Your task to perform on an android device: toggle notifications settings in the gmail app Image 0: 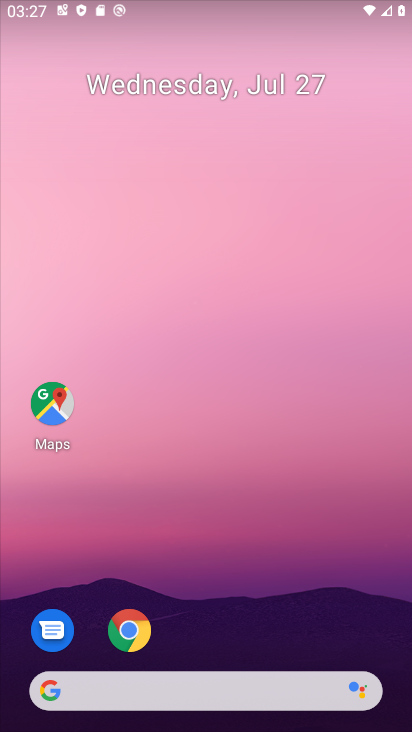
Step 0: press back button
Your task to perform on an android device: toggle notifications settings in the gmail app Image 1: 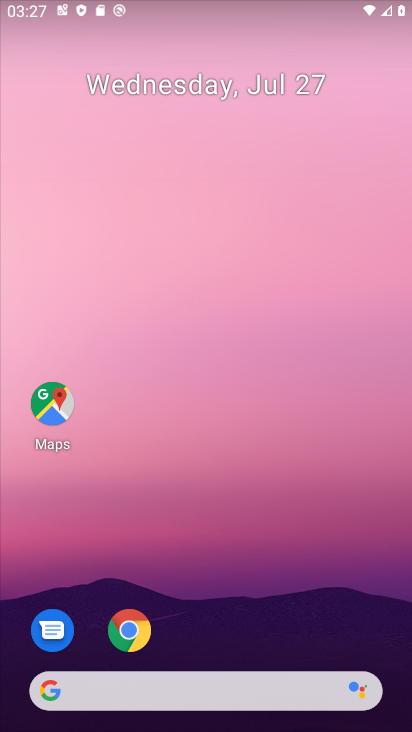
Step 1: press home button
Your task to perform on an android device: toggle notifications settings in the gmail app Image 2: 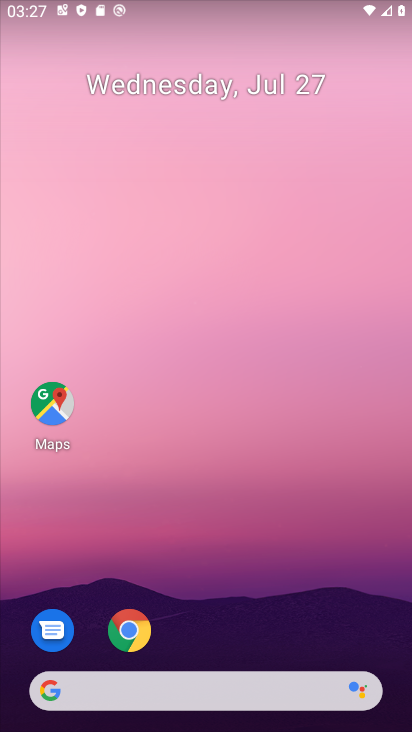
Step 2: click (25, 108)
Your task to perform on an android device: toggle notifications settings in the gmail app Image 3: 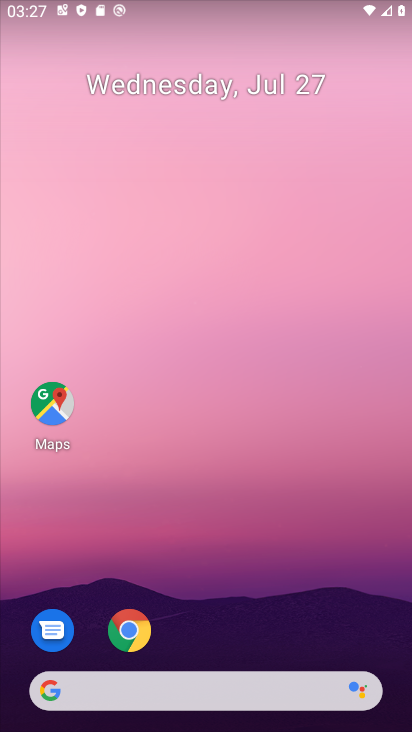
Step 3: drag from (238, 386) to (94, 189)
Your task to perform on an android device: toggle notifications settings in the gmail app Image 4: 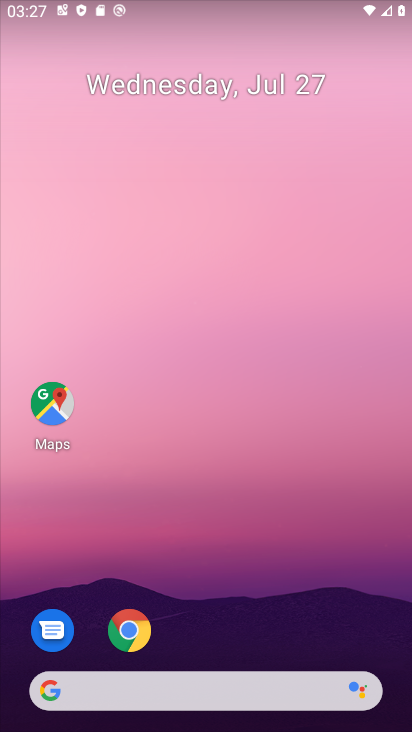
Step 4: drag from (177, 454) to (102, 227)
Your task to perform on an android device: toggle notifications settings in the gmail app Image 5: 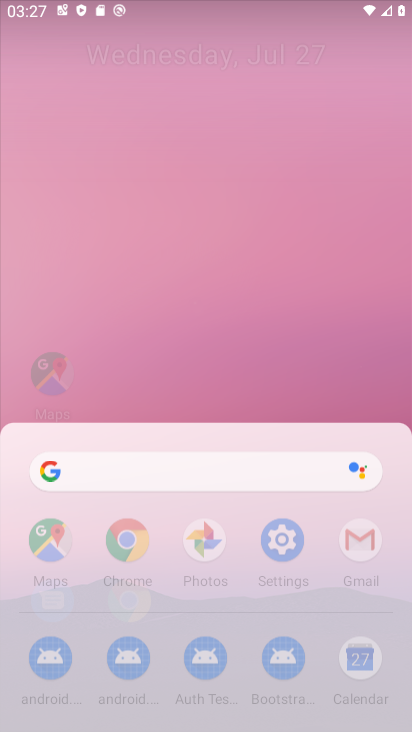
Step 5: drag from (262, 493) to (148, 163)
Your task to perform on an android device: toggle notifications settings in the gmail app Image 6: 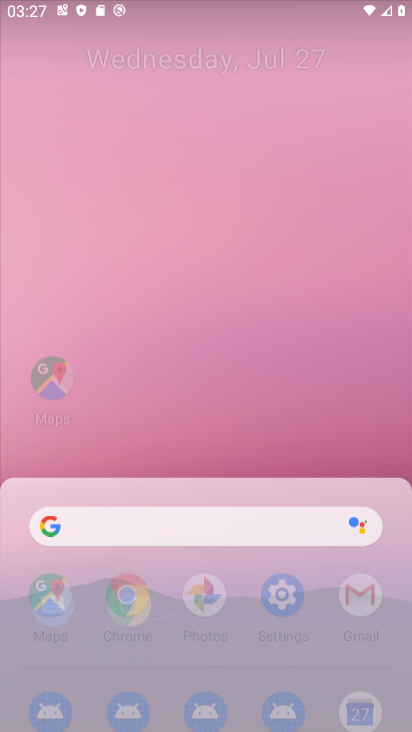
Step 6: drag from (241, 522) to (93, 40)
Your task to perform on an android device: toggle notifications settings in the gmail app Image 7: 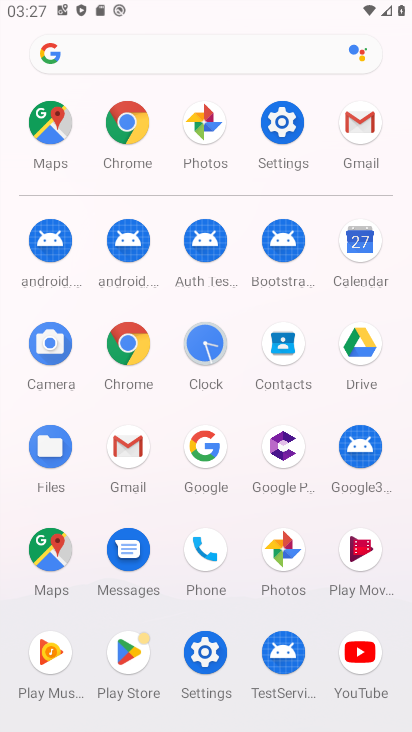
Step 7: drag from (200, 471) to (110, 102)
Your task to perform on an android device: toggle notifications settings in the gmail app Image 8: 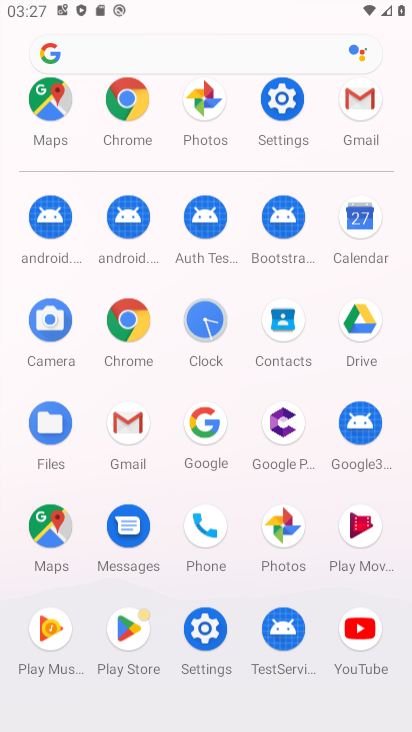
Step 8: drag from (272, 522) to (197, 114)
Your task to perform on an android device: toggle notifications settings in the gmail app Image 9: 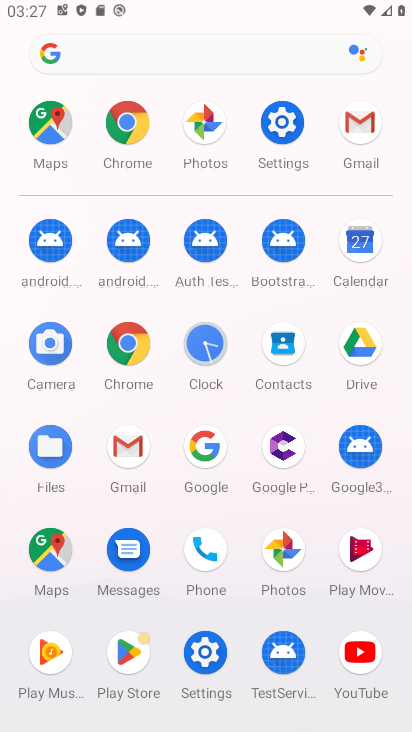
Step 9: click (355, 127)
Your task to perform on an android device: toggle notifications settings in the gmail app Image 10: 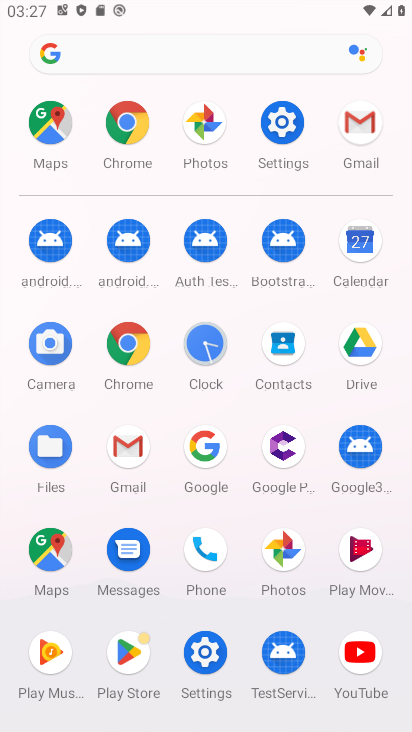
Step 10: click (355, 127)
Your task to perform on an android device: toggle notifications settings in the gmail app Image 11: 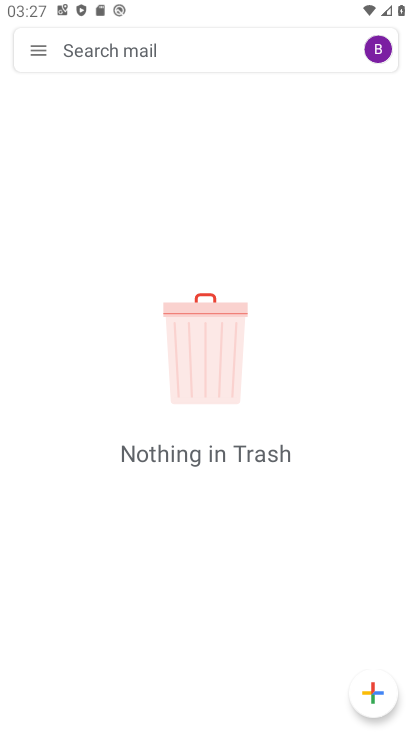
Step 11: click (37, 52)
Your task to perform on an android device: toggle notifications settings in the gmail app Image 12: 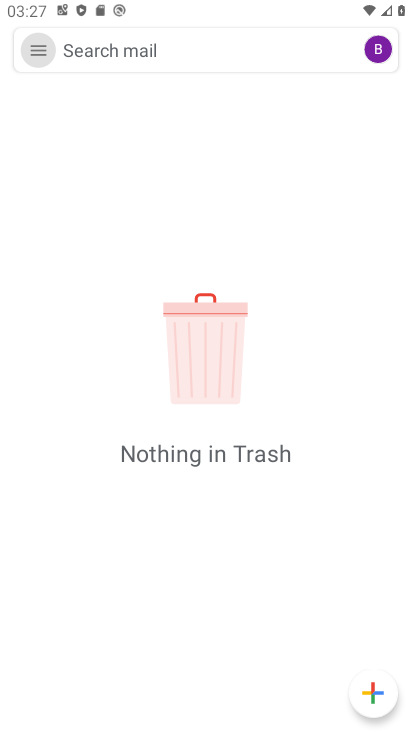
Step 12: click (39, 52)
Your task to perform on an android device: toggle notifications settings in the gmail app Image 13: 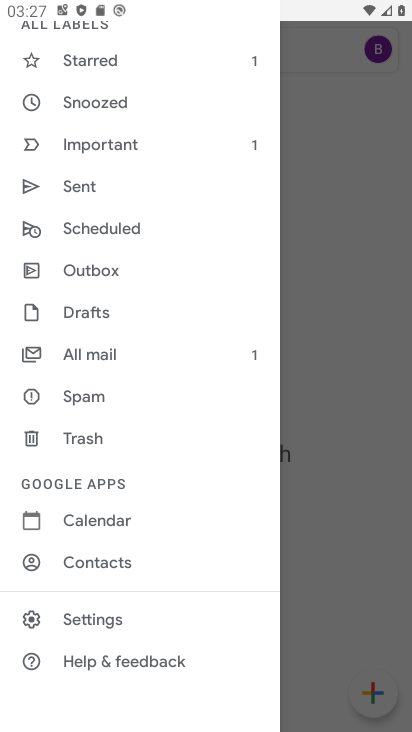
Step 13: click (106, 613)
Your task to perform on an android device: toggle notifications settings in the gmail app Image 14: 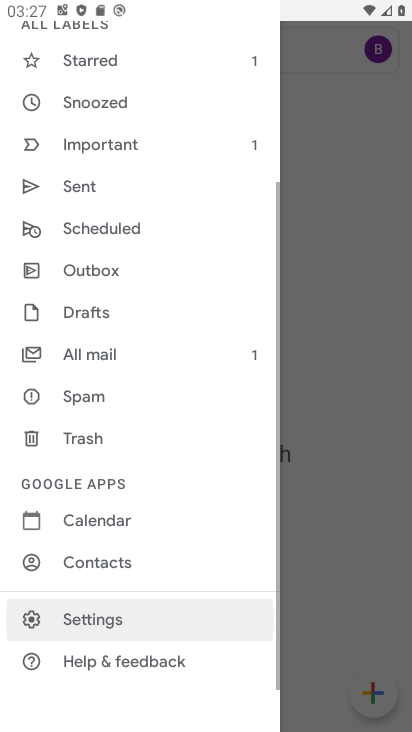
Step 14: click (94, 604)
Your task to perform on an android device: toggle notifications settings in the gmail app Image 15: 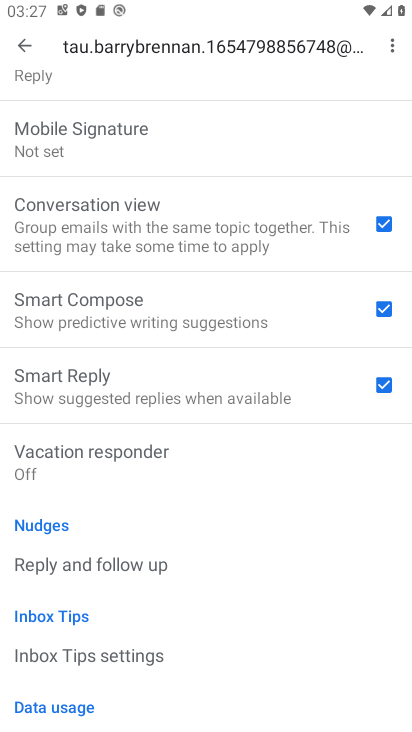
Step 15: drag from (102, 184) to (127, 500)
Your task to perform on an android device: toggle notifications settings in the gmail app Image 16: 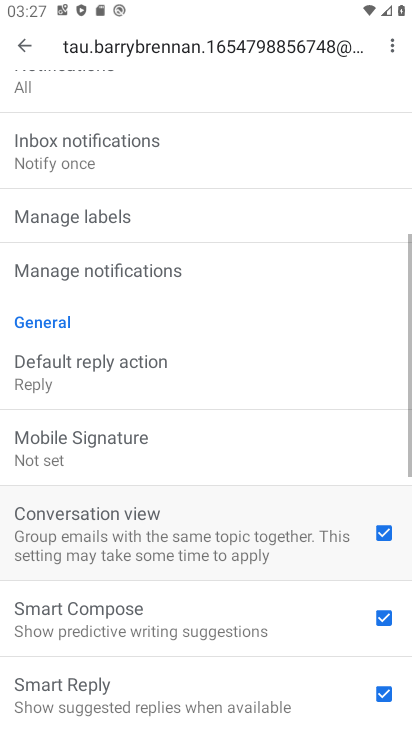
Step 16: drag from (110, 340) to (142, 533)
Your task to perform on an android device: toggle notifications settings in the gmail app Image 17: 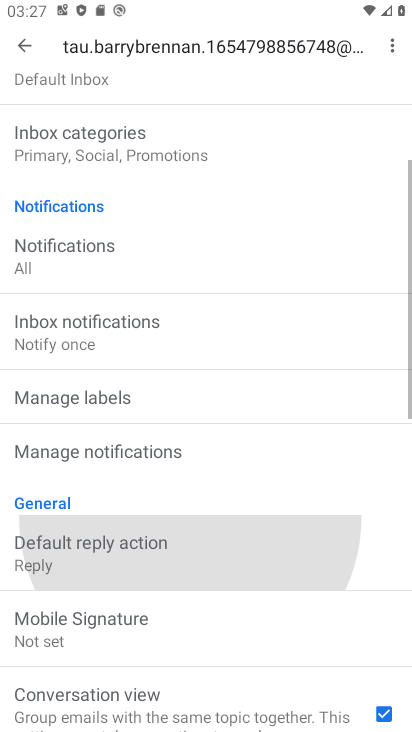
Step 17: drag from (129, 208) to (152, 526)
Your task to perform on an android device: toggle notifications settings in the gmail app Image 18: 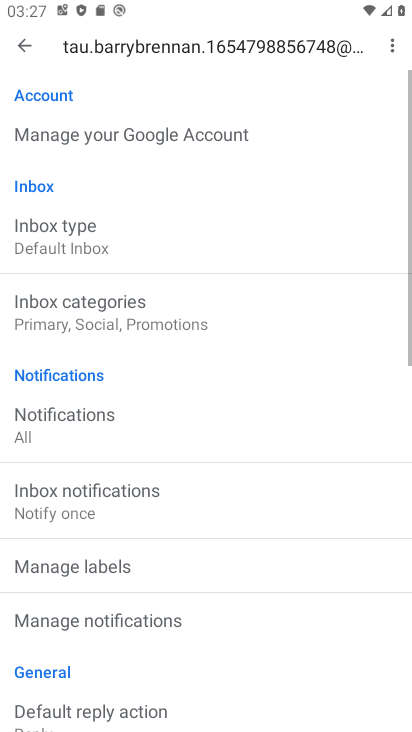
Step 18: drag from (107, 265) to (134, 517)
Your task to perform on an android device: toggle notifications settings in the gmail app Image 19: 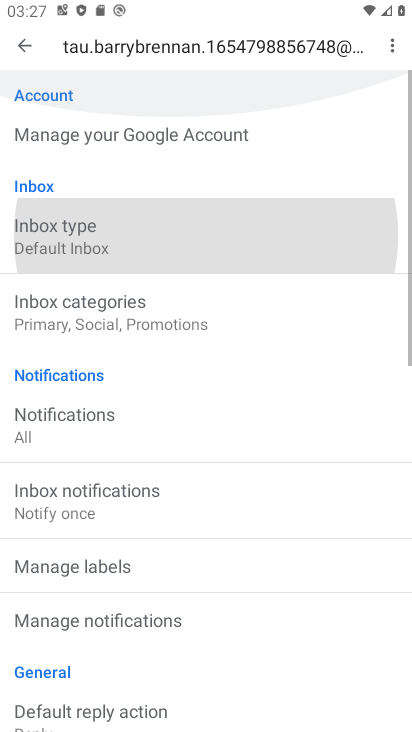
Step 19: drag from (121, 332) to (164, 487)
Your task to perform on an android device: toggle notifications settings in the gmail app Image 20: 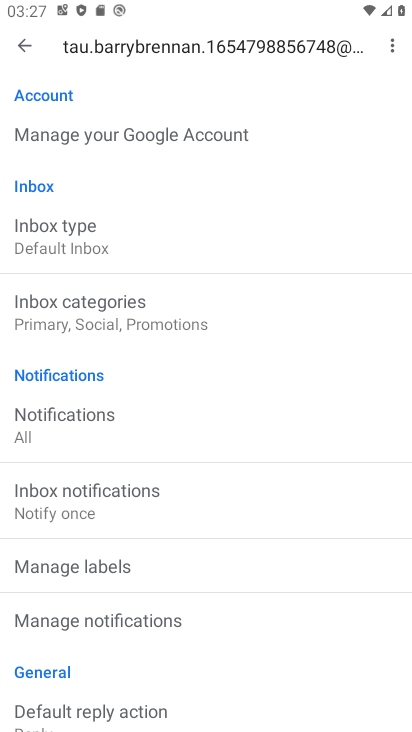
Step 20: click (58, 411)
Your task to perform on an android device: toggle notifications settings in the gmail app Image 21: 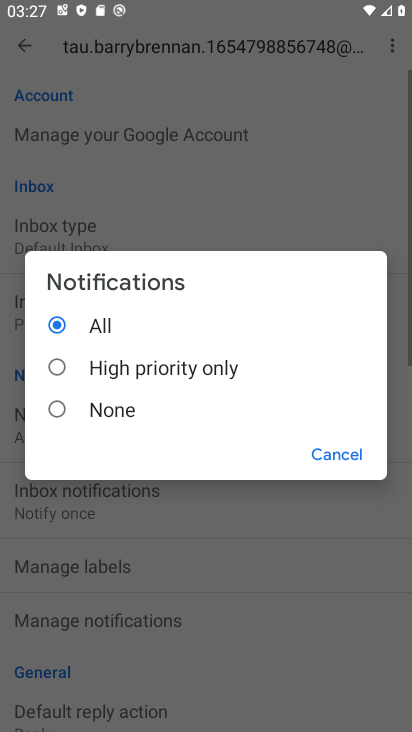
Step 21: click (61, 363)
Your task to perform on an android device: toggle notifications settings in the gmail app Image 22: 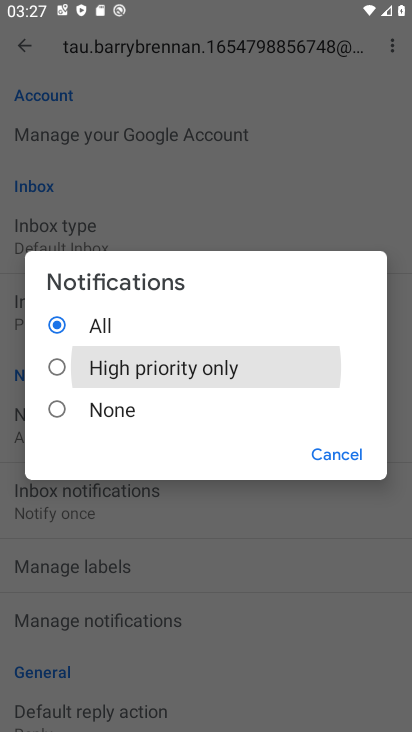
Step 22: click (61, 364)
Your task to perform on an android device: toggle notifications settings in the gmail app Image 23: 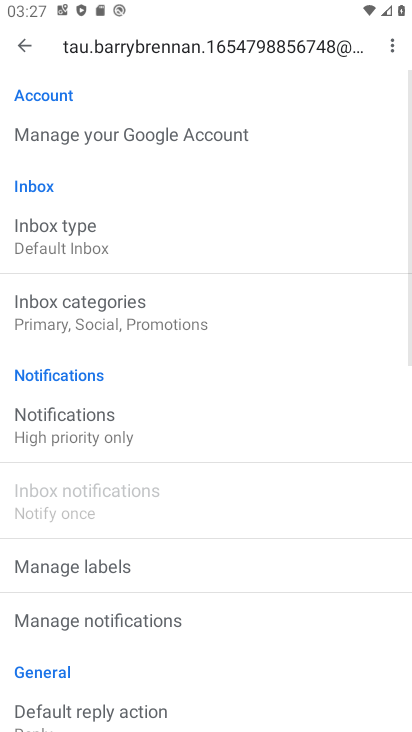
Step 23: task complete